Your task to perform on an android device: toggle wifi Image 0: 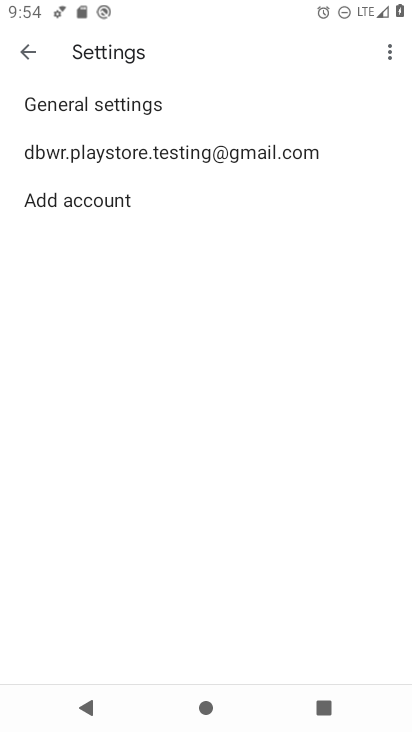
Step 0: press home button
Your task to perform on an android device: toggle wifi Image 1: 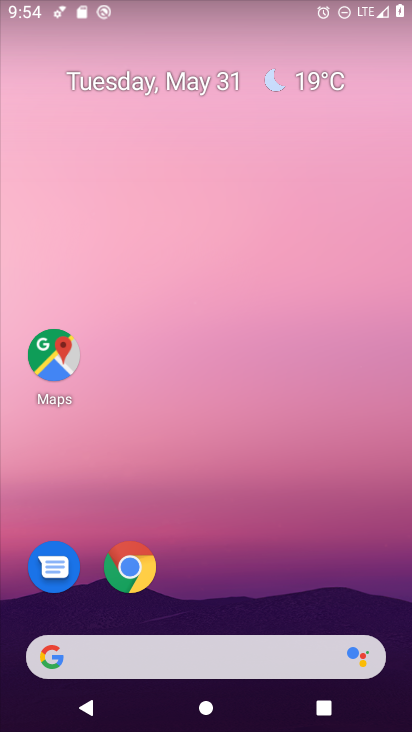
Step 1: drag from (246, 598) to (274, 275)
Your task to perform on an android device: toggle wifi Image 2: 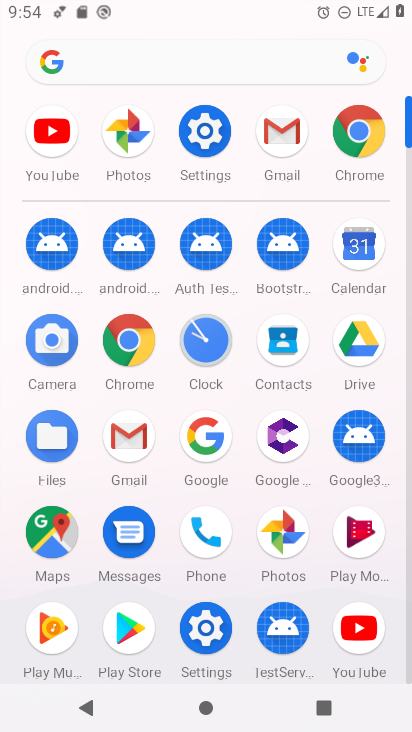
Step 2: click (211, 123)
Your task to perform on an android device: toggle wifi Image 3: 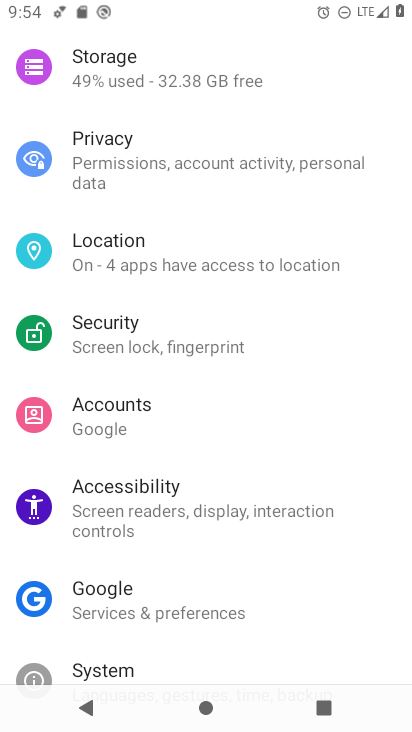
Step 3: drag from (196, 57) to (203, 413)
Your task to perform on an android device: toggle wifi Image 4: 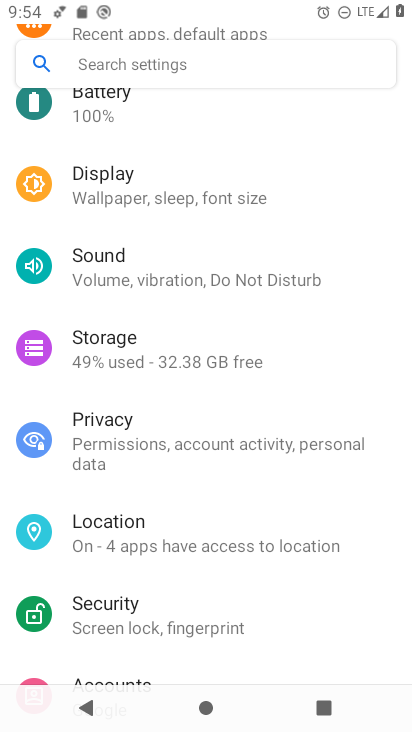
Step 4: drag from (184, 110) to (212, 451)
Your task to perform on an android device: toggle wifi Image 5: 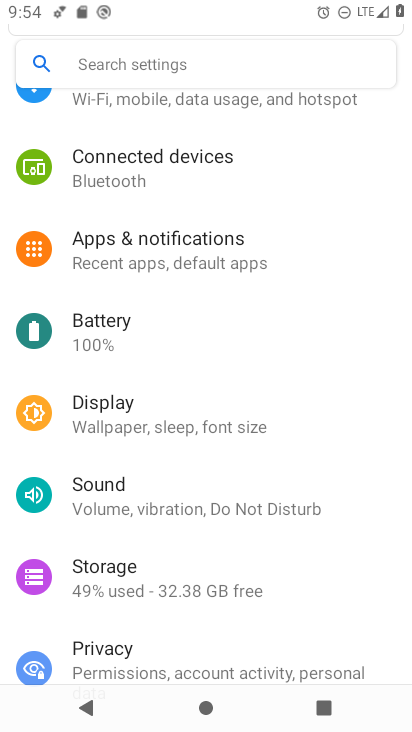
Step 5: click (177, 93)
Your task to perform on an android device: toggle wifi Image 6: 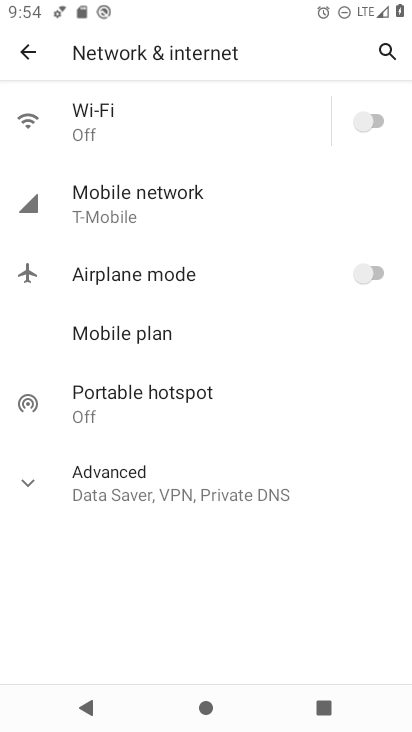
Step 6: click (375, 118)
Your task to perform on an android device: toggle wifi Image 7: 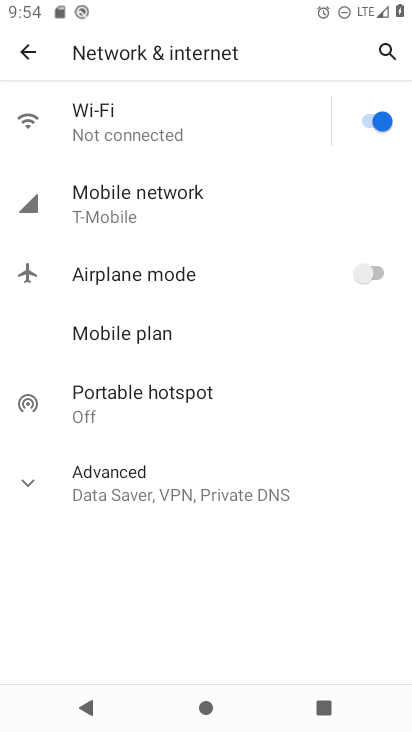
Step 7: task complete